Your task to perform on an android device: Open Youtube and go to the subscriptions tab Image 0: 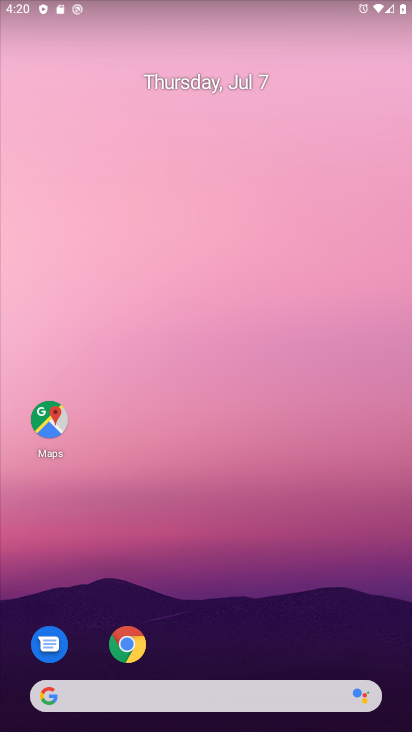
Step 0: drag from (272, 649) to (259, 124)
Your task to perform on an android device: Open Youtube and go to the subscriptions tab Image 1: 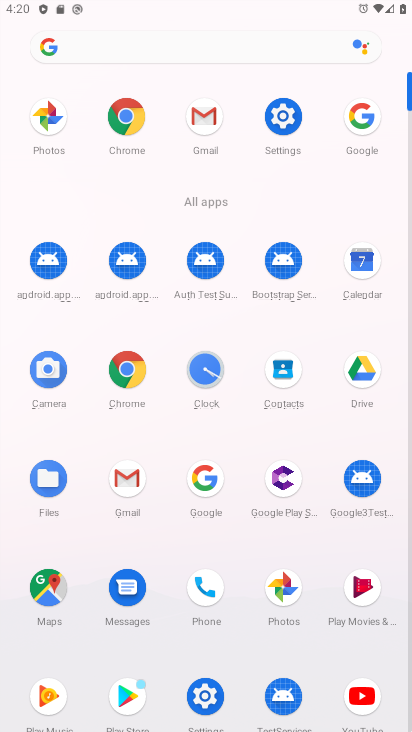
Step 1: click (363, 693)
Your task to perform on an android device: Open Youtube and go to the subscriptions tab Image 2: 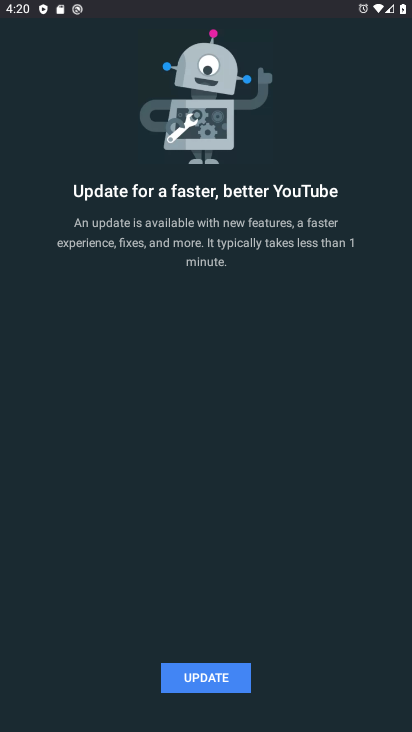
Step 2: click (213, 678)
Your task to perform on an android device: Open Youtube and go to the subscriptions tab Image 3: 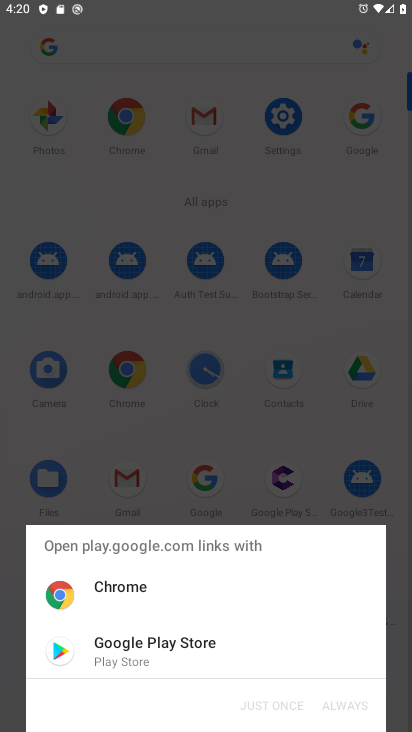
Step 3: click (180, 647)
Your task to perform on an android device: Open Youtube and go to the subscriptions tab Image 4: 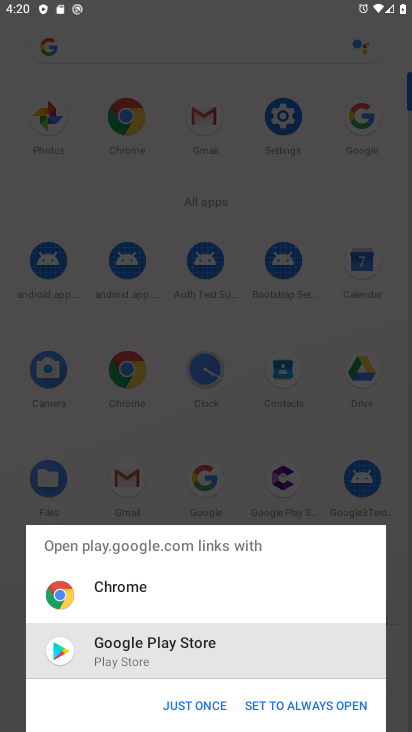
Step 4: click (188, 702)
Your task to perform on an android device: Open Youtube and go to the subscriptions tab Image 5: 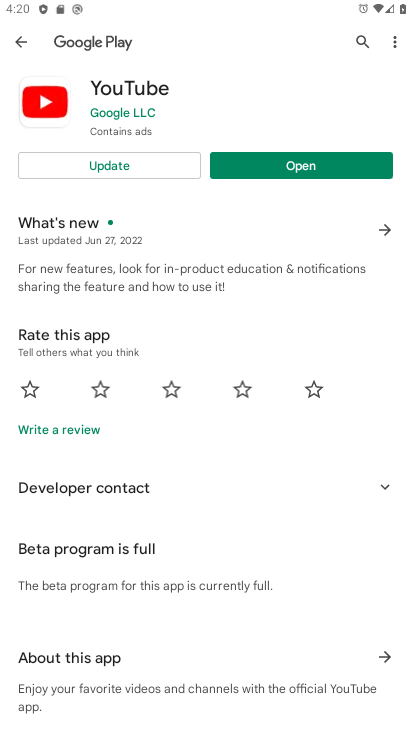
Step 5: click (134, 169)
Your task to perform on an android device: Open Youtube and go to the subscriptions tab Image 6: 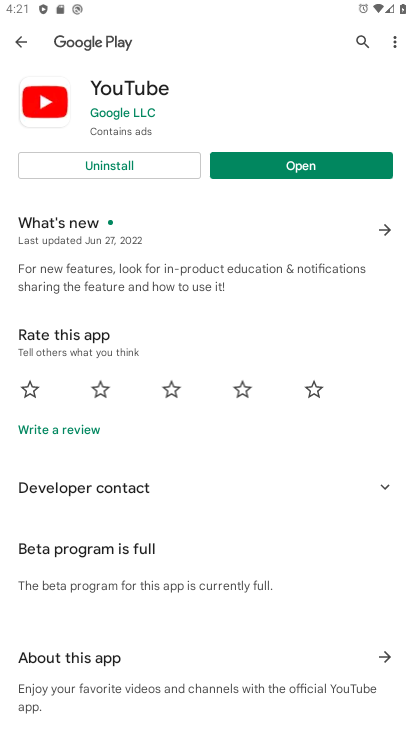
Step 6: click (274, 161)
Your task to perform on an android device: Open Youtube and go to the subscriptions tab Image 7: 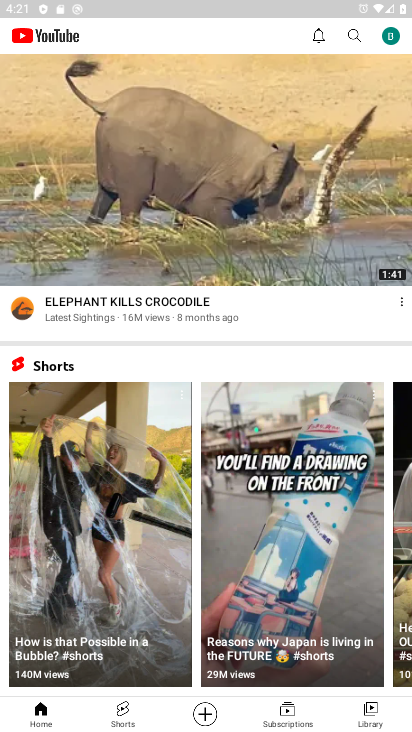
Step 7: click (288, 707)
Your task to perform on an android device: Open Youtube and go to the subscriptions tab Image 8: 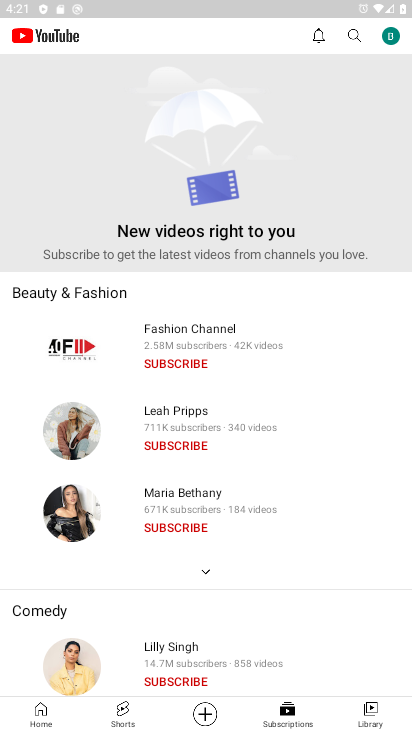
Step 8: task complete